Your task to perform on an android device: Search for "logitech g933" on bestbuy, select the first entry, add it to the cart, then select checkout. Image 0: 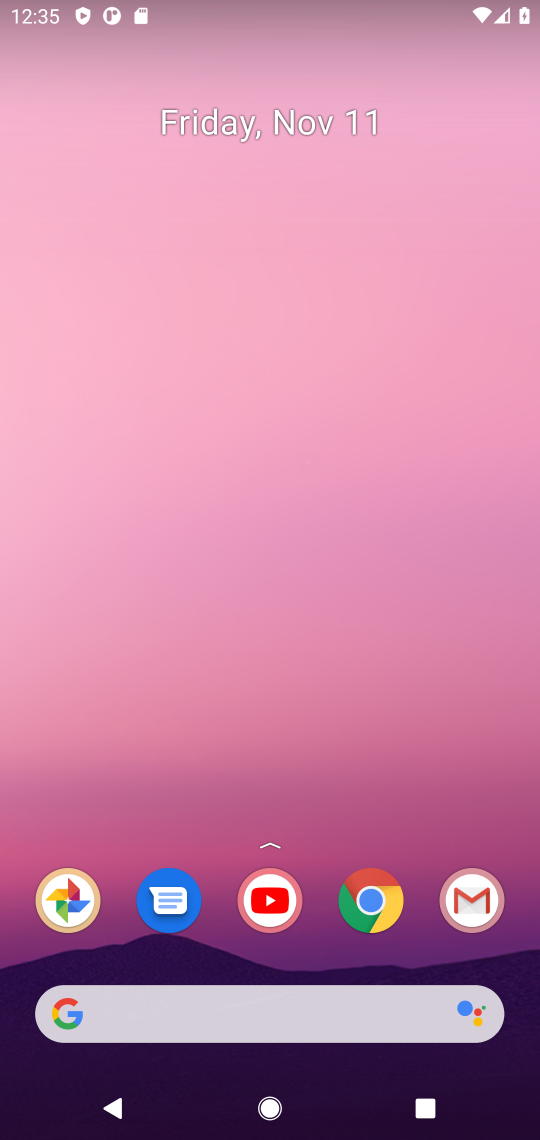
Step 0: click (373, 905)
Your task to perform on an android device: Search for "logitech g933" on bestbuy, select the first entry, add it to the cart, then select checkout. Image 1: 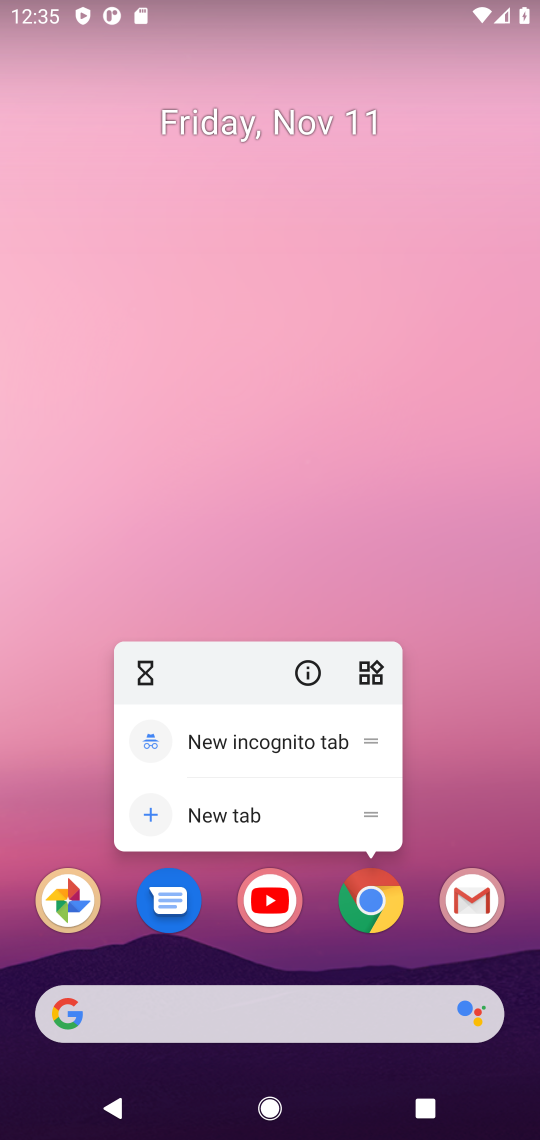
Step 1: click (379, 899)
Your task to perform on an android device: Search for "logitech g933" on bestbuy, select the first entry, add it to the cart, then select checkout. Image 2: 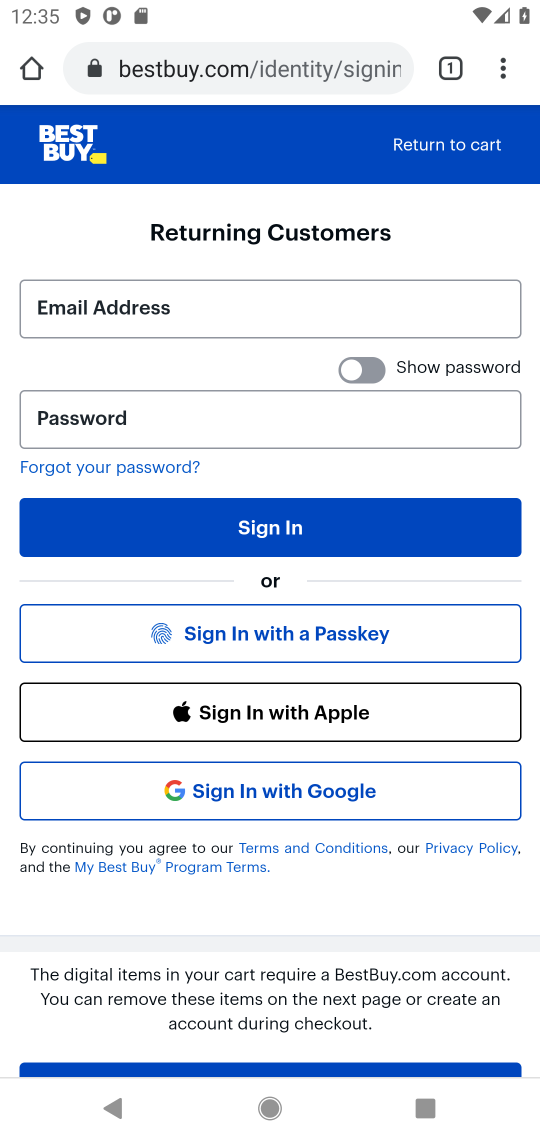
Step 2: press back button
Your task to perform on an android device: Search for "logitech g933" on bestbuy, select the first entry, add it to the cart, then select checkout. Image 3: 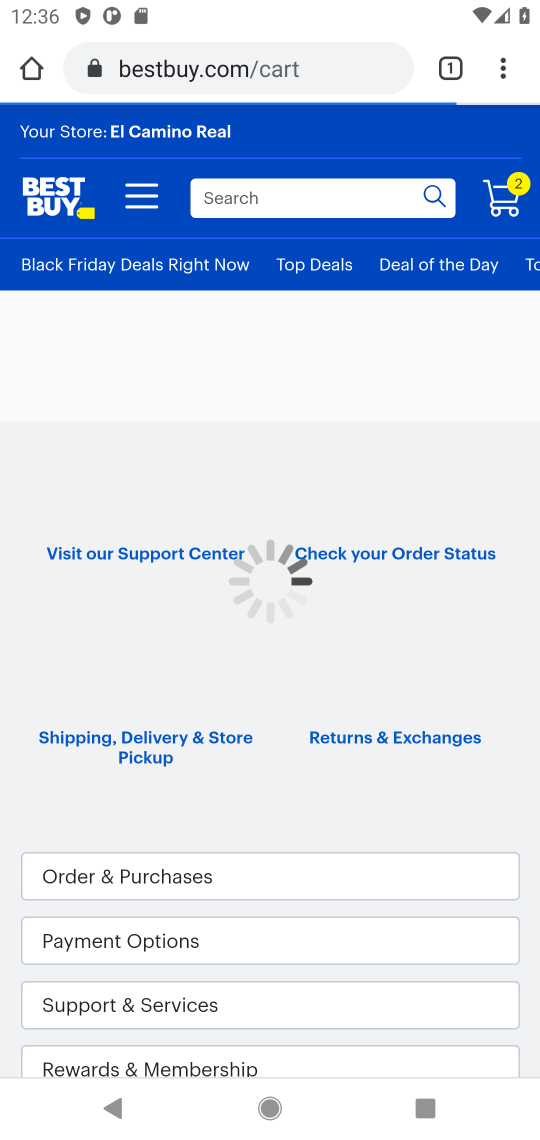
Step 3: click (276, 192)
Your task to perform on an android device: Search for "logitech g933" on bestbuy, select the first entry, add it to the cart, then select checkout. Image 4: 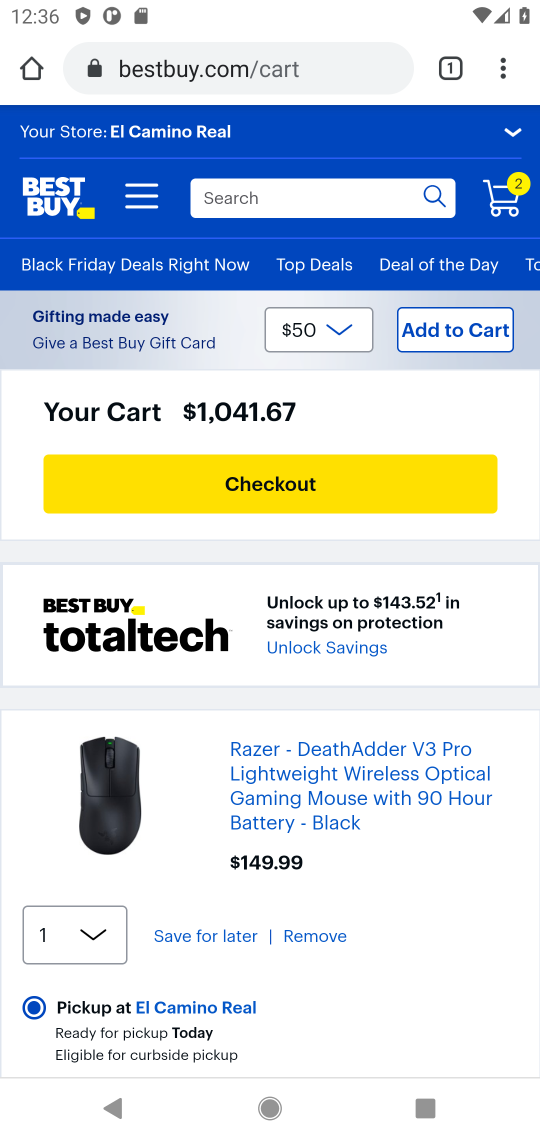
Step 4: click (340, 199)
Your task to perform on an android device: Search for "logitech g933" on bestbuy, select the first entry, add it to the cart, then select checkout. Image 5: 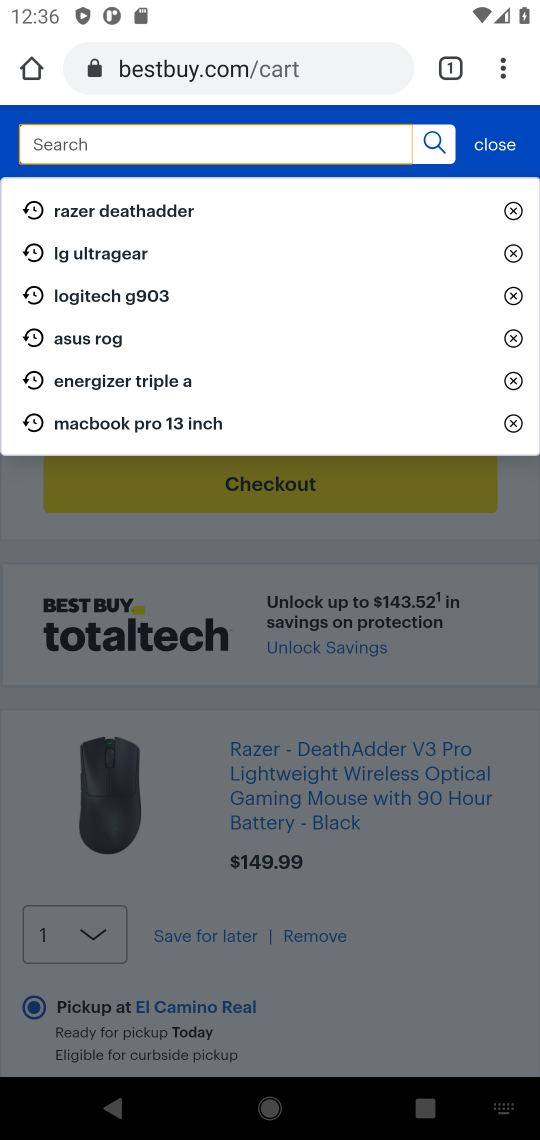
Step 5: type "logitech g933"
Your task to perform on an android device: Search for "logitech g933" on bestbuy, select the first entry, add it to the cart, then select checkout. Image 6: 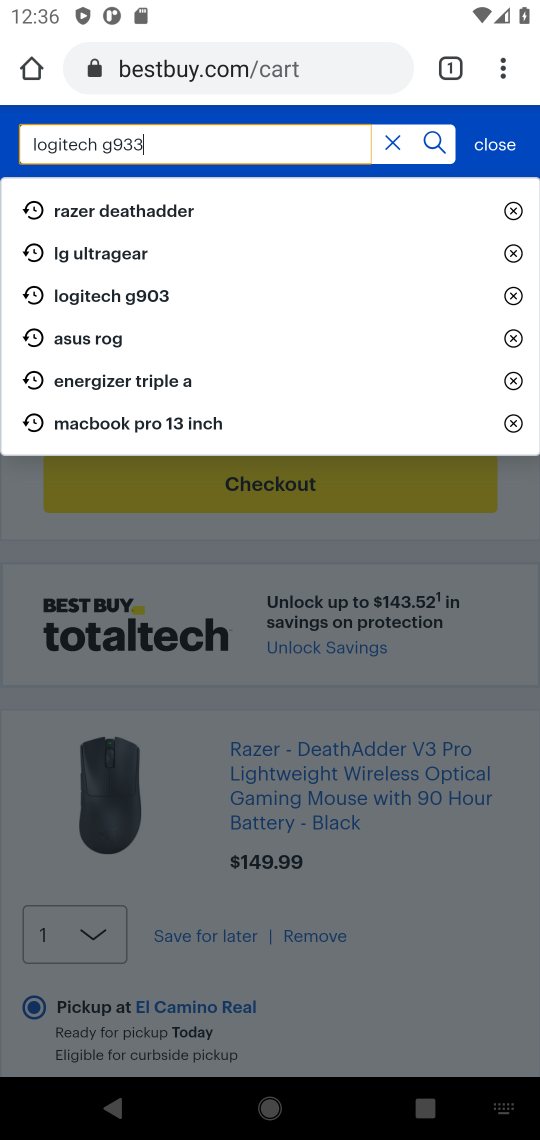
Step 6: press enter
Your task to perform on an android device: Search for "logitech g933" on bestbuy, select the first entry, add it to the cart, then select checkout. Image 7: 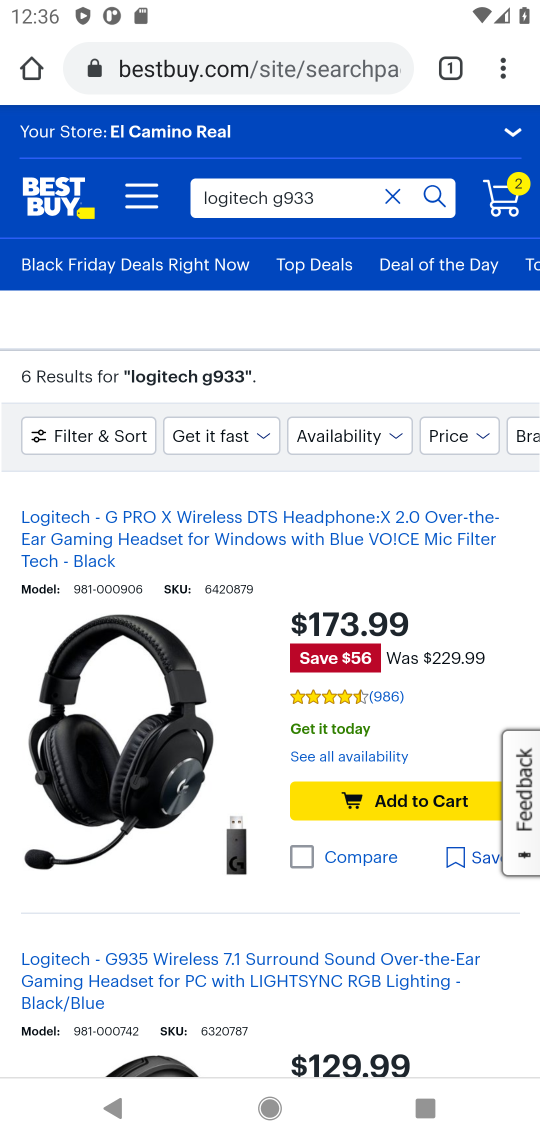
Step 7: task complete